Your task to perform on an android device: clear all cookies in the chrome app Image 0: 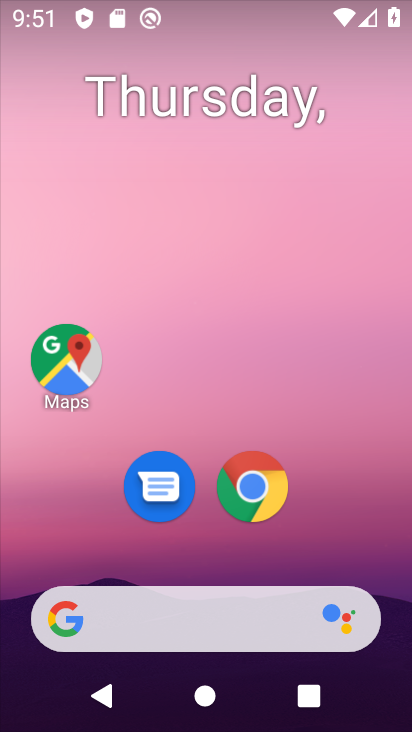
Step 0: click (250, 487)
Your task to perform on an android device: clear all cookies in the chrome app Image 1: 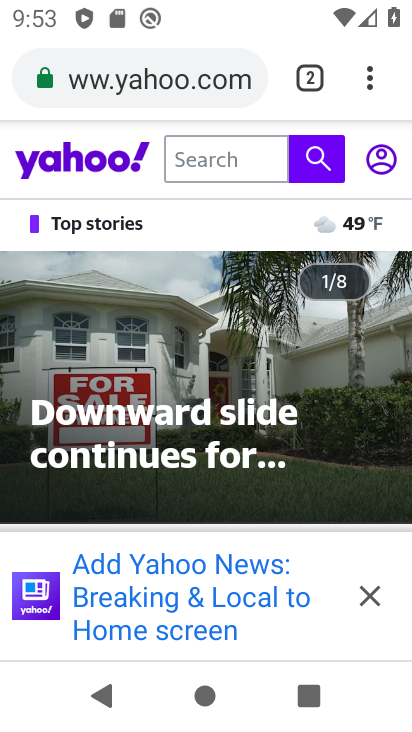
Step 1: drag from (370, 74) to (105, 433)
Your task to perform on an android device: clear all cookies in the chrome app Image 2: 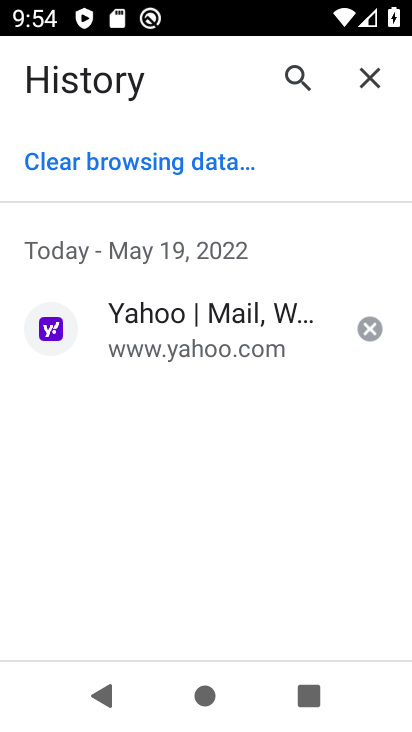
Step 2: click (140, 150)
Your task to perform on an android device: clear all cookies in the chrome app Image 3: 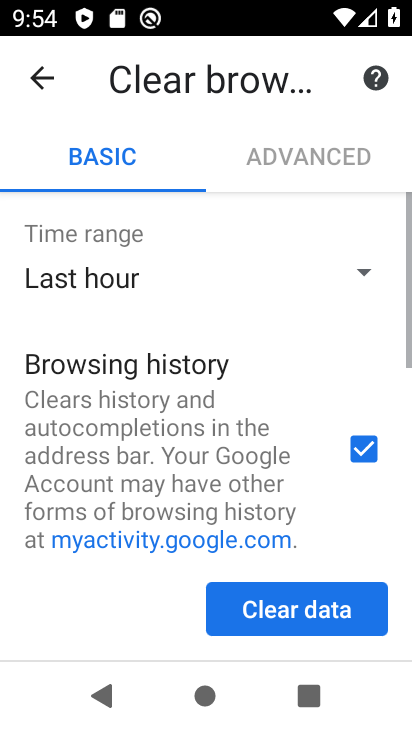
Step 3: drag from (156, 489) to (208, 192)
Your task to perform on an android device: clear all cookies in the chrome app Image 4: 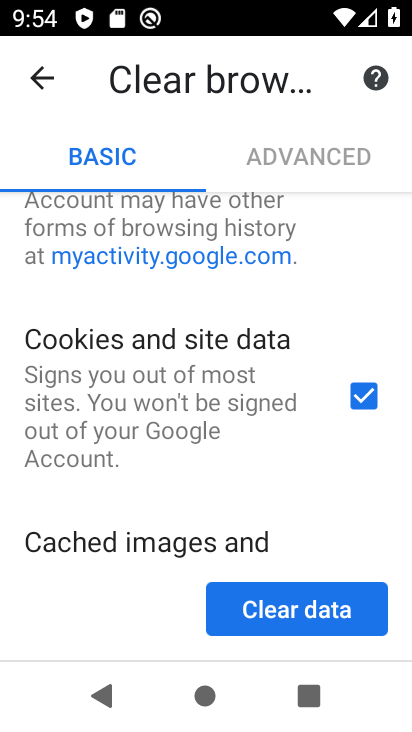
Step 4: click (320, 592)
Your task to perform on an android device: clear all cookies in the chrome app Image 5: 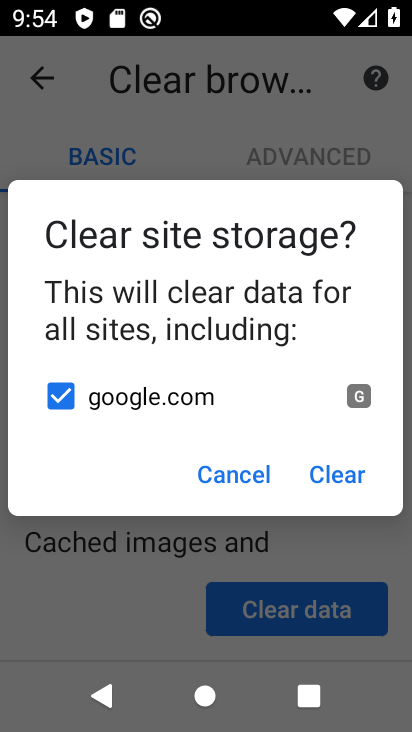
Step 5: click (342, 460)
Your task to perform on an android device: clear all cookies in the chrome app Image 6: 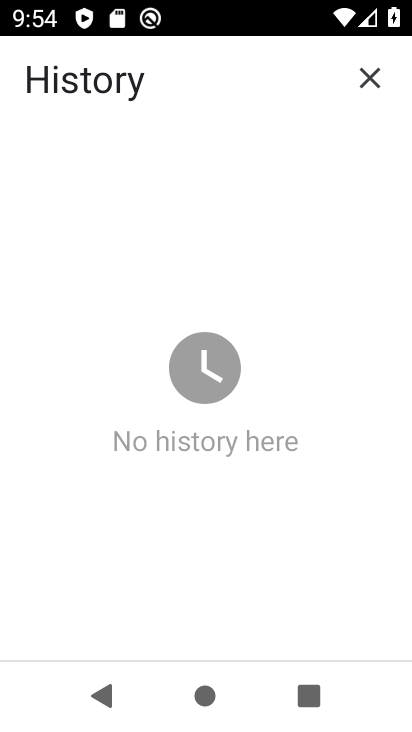
Step 6: task complete